Your task to perform on an android device: uninstall "DuckDuckGo Privacy Browser" Image 0: 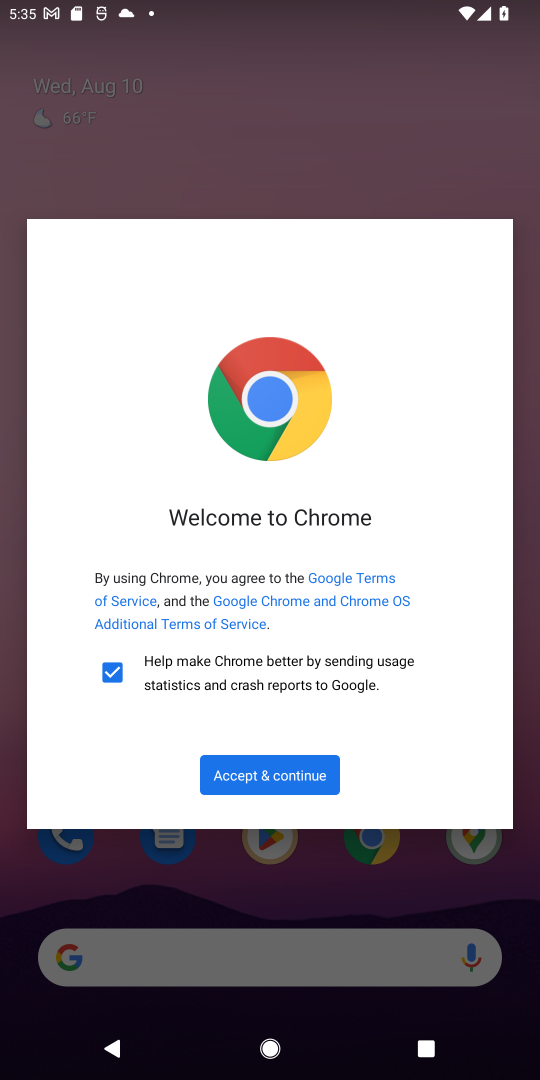
Step 0: press home button
Your task to perform on an android device: uninstall "DuckDuckGo Privacy Browser" Image 1: 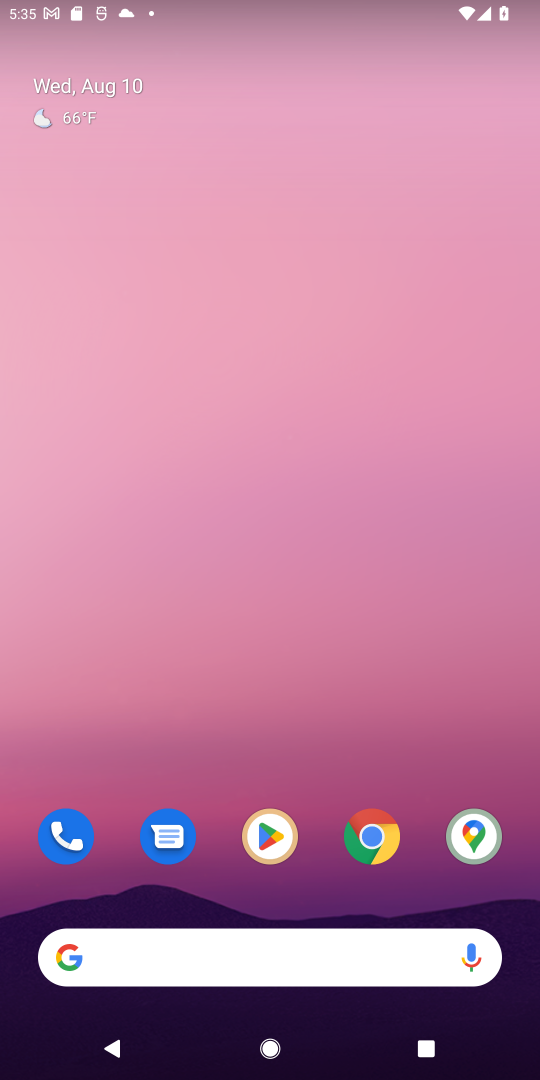
Step 1: drag from (281, 907) to (315, 354)
Your task to perform on an android device: uninstall "DuckDuckGo Privacy Browser" Image 2: 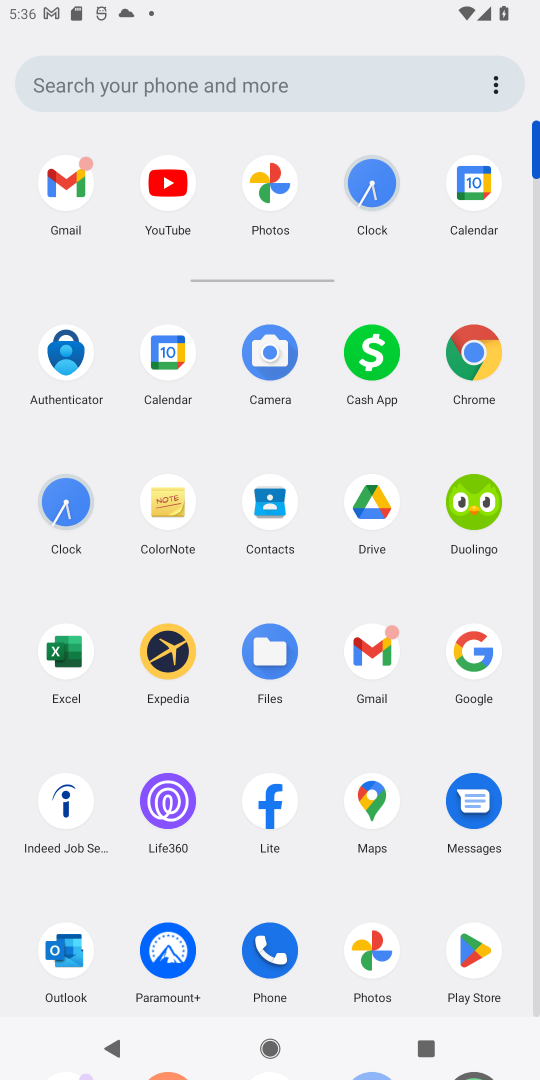
Step 2: drag from (146, 880) to (260, 290)
Your task to perform on an android device: uninstall "DuckDuckGo Privacy Browser" Image 3: 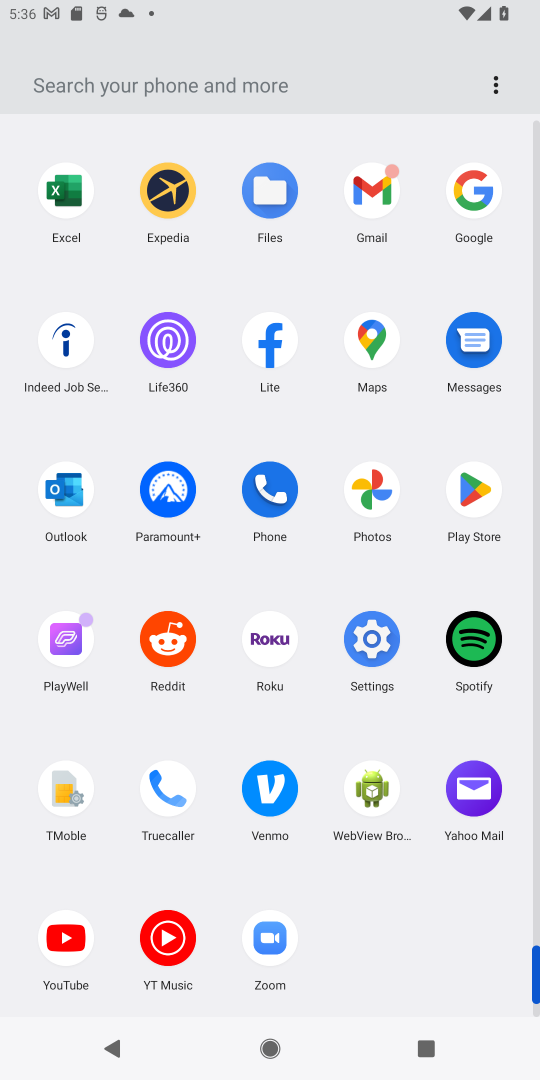
Step 3: click (459, 484)
Your task to perform on an android device: uninstall "DuckDuckGo Privacy Browser" Image 4: 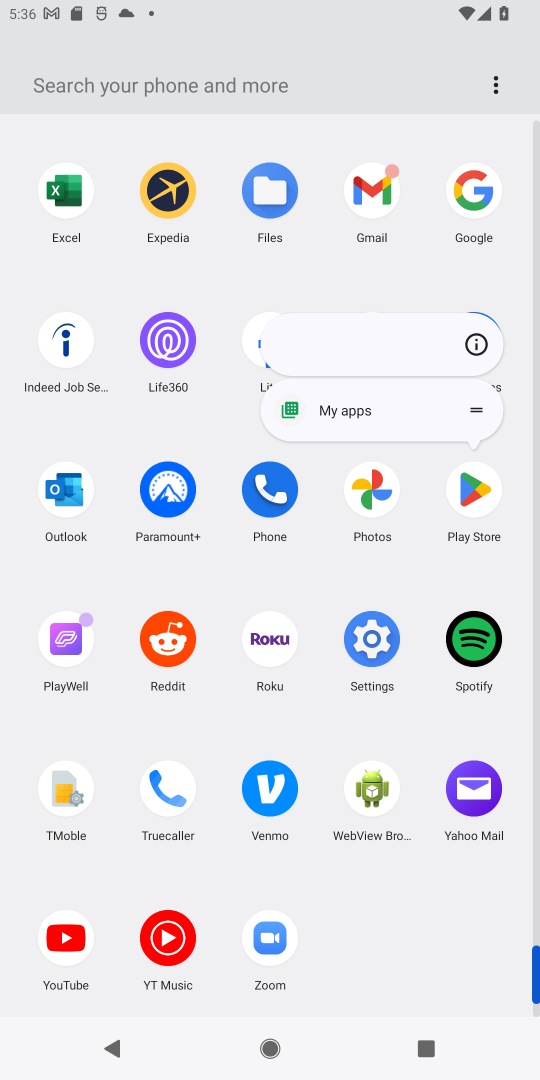
Step 4: click (459, 484)
Your task to perform on an android device: uninstall "DuckDuckGo Privacy Browser" Image 5: 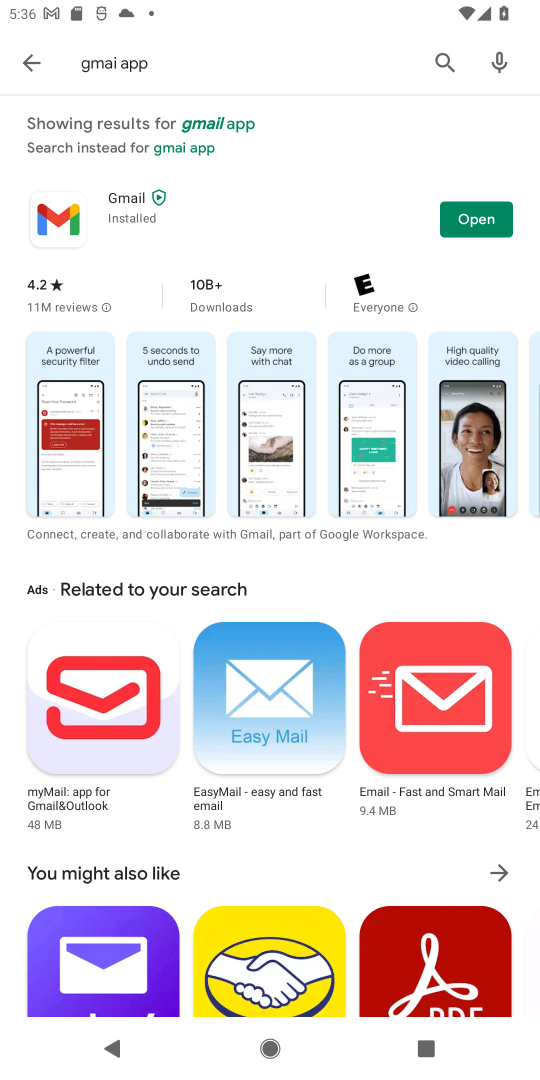
Step 5: click (47, 58)
Your task to perform on an android device: uninstall "DuckDuckGo Privacy Browser" Image 6: 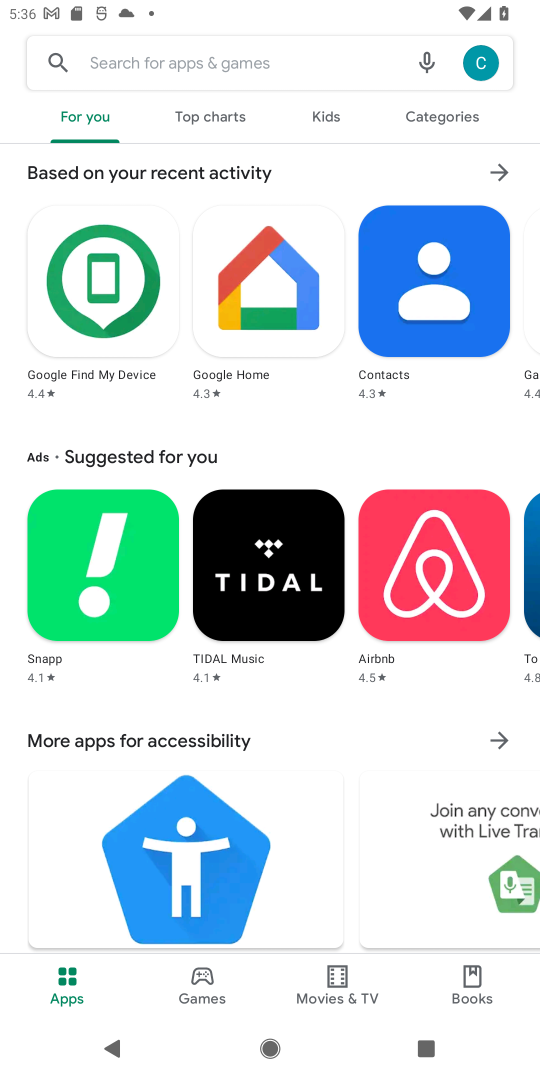
Step 6: click (226, 47)
Your task to perform on an android device: uninstall "DuckDuckGo Privacy Browser" Image 7: 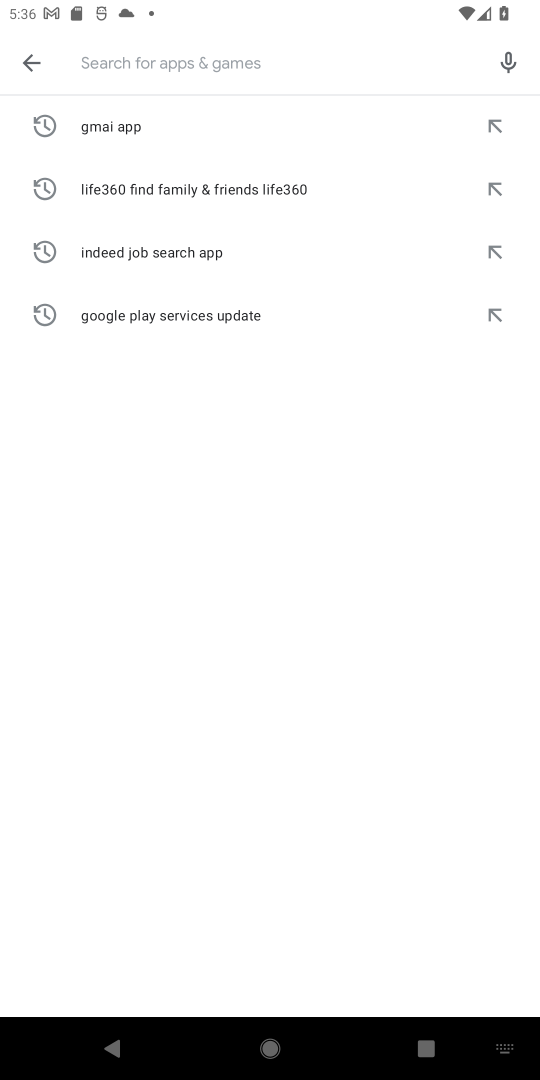
Step 7: type "DuckDuckGo Privacy Browser "
Your task to perform on an android device: uninstall "DuckDuckGo Privacy Browser" Image 8: 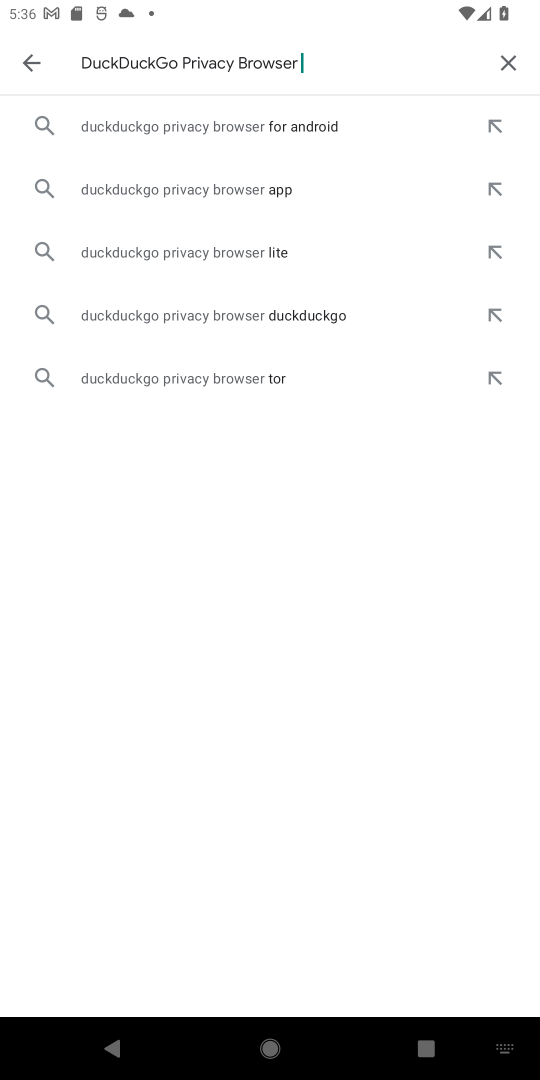
Step 8: click (183, 132)
Your task to perform on an android device: uninstall "DuckDuckGo Privacy Browser" Image 9: 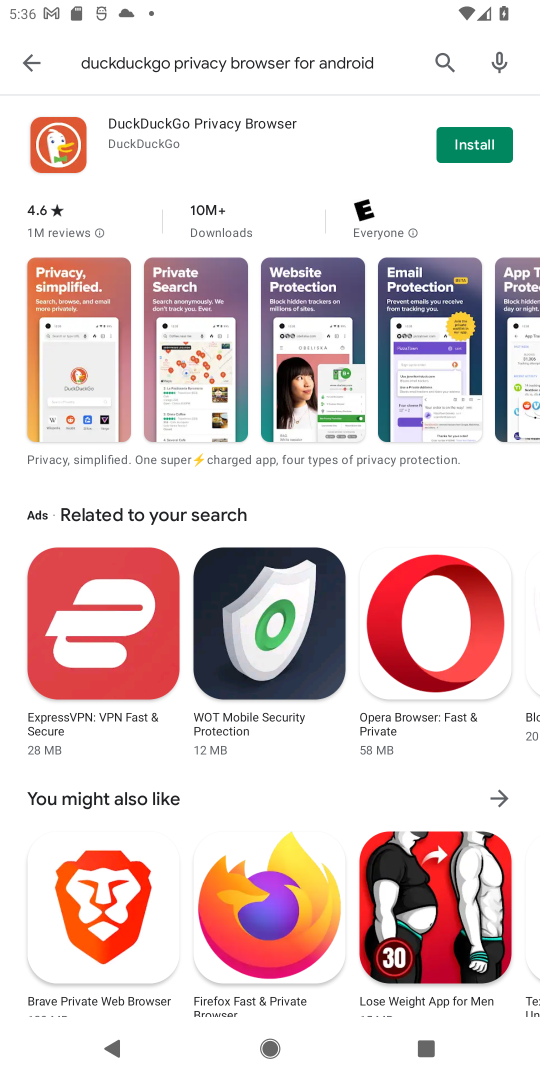
Step 9: click (239, 122)
Your task to perform on an android device: uninstall "DuckDuckGo Privacy Browser" Image 10: 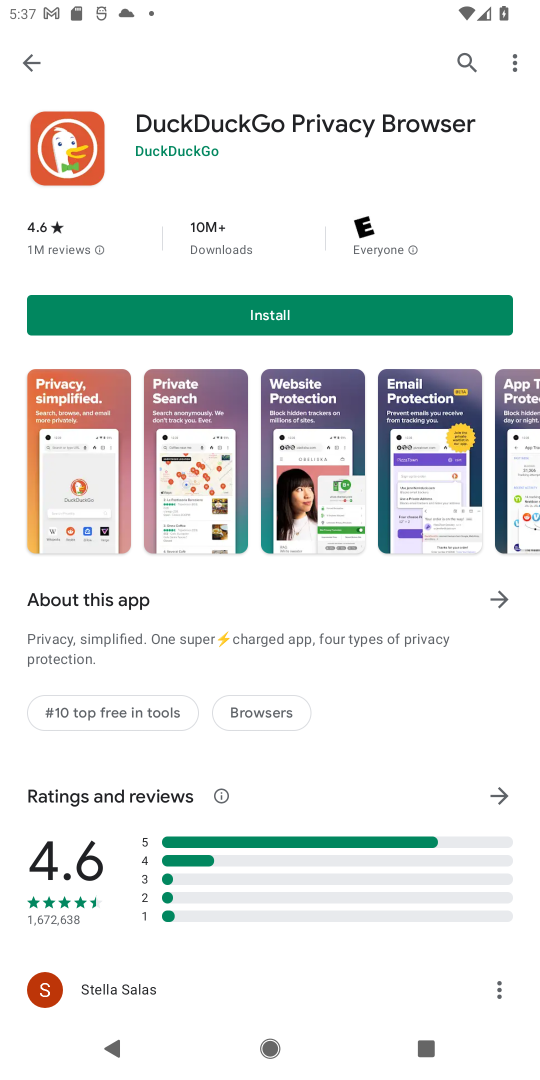
Step 10: task complete